Your task to perform on an android device: Go to wifi settings Image 0: 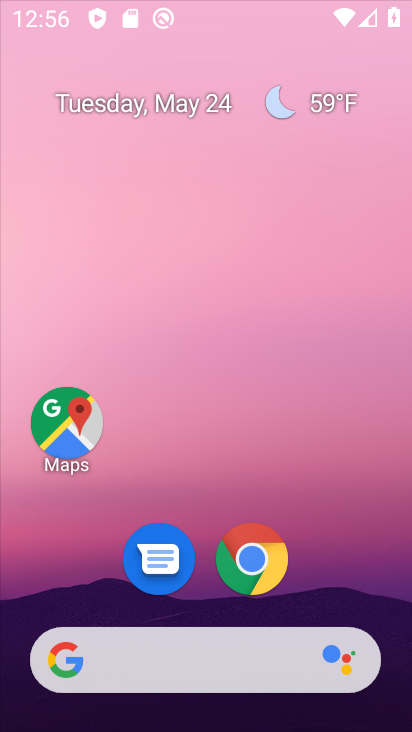
Step 0: click (287, 122)
Your task to perform on an android device: Go to wifi settings Image 1: 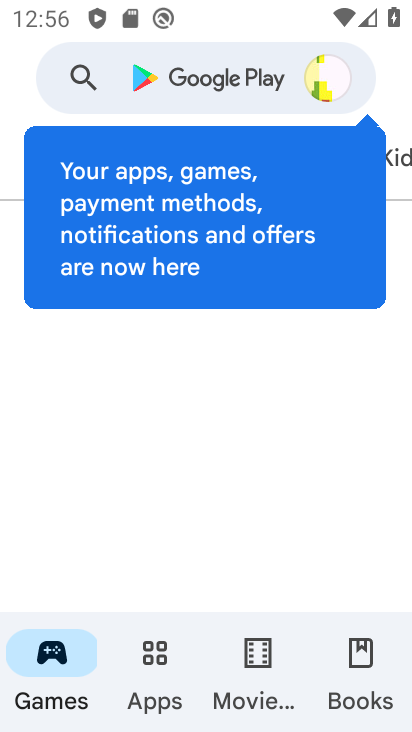
Step 1: press home button
Your task to perform on an android device: Go to wifi settings Image 2: 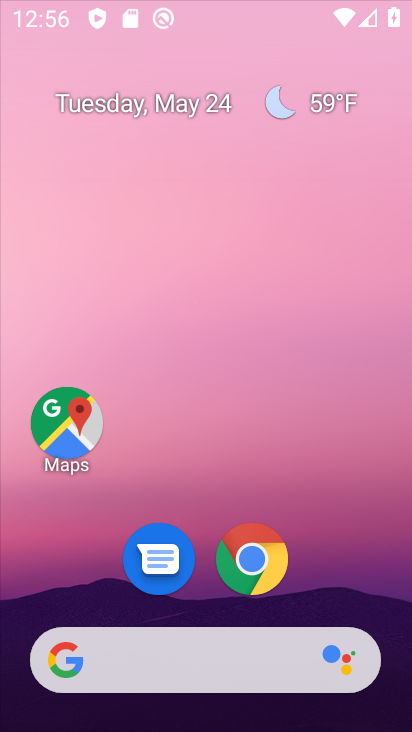
Step 2: drag from (398, 645) to (273, 23)
Your task to perform on an android device: Go to wifi settings Image 3: 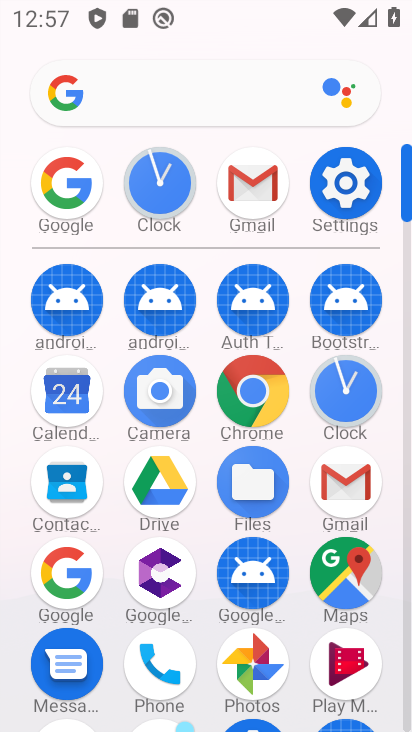
Step 3: click (344, 216)
Your task to perform on an android device: Go to wifi settings Image 4: 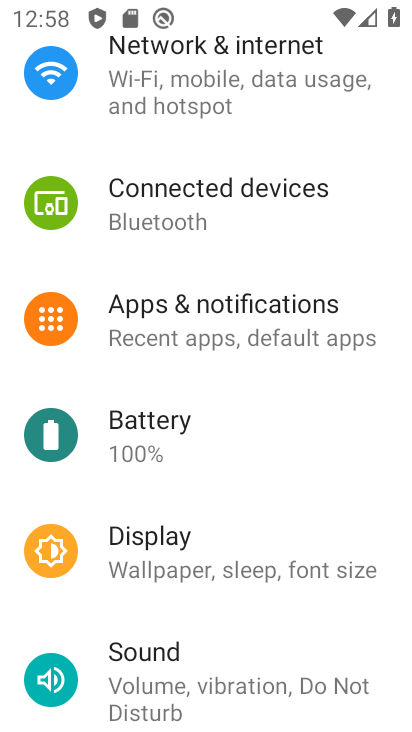
Step 4: drag from (177, 114) to (187, 583)
Your task to perform on an android device: Go to wifi settings Image 5: 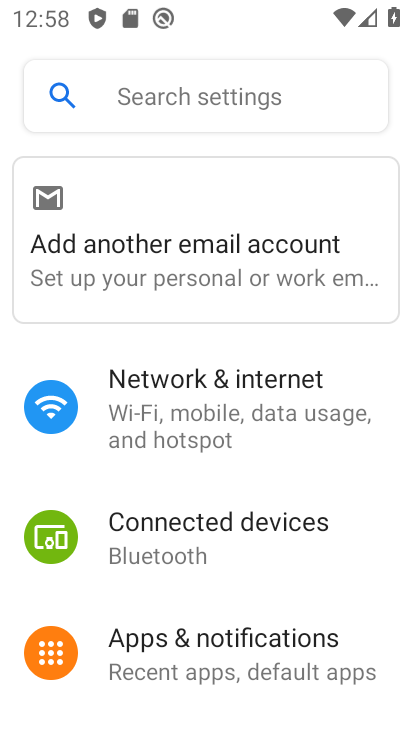
Step 5: click (144, 411)
Your task to perform on an android device: Go to wifi settings Image 6: 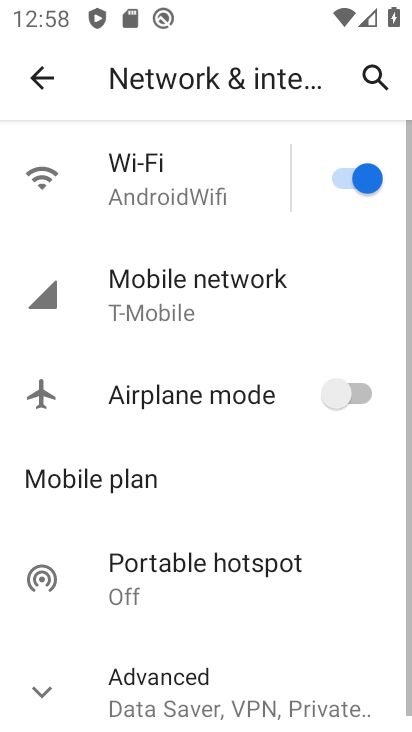
Step 6: click (152, 180)
Your task to perform on an android device: Go to wifi settings Image 7: 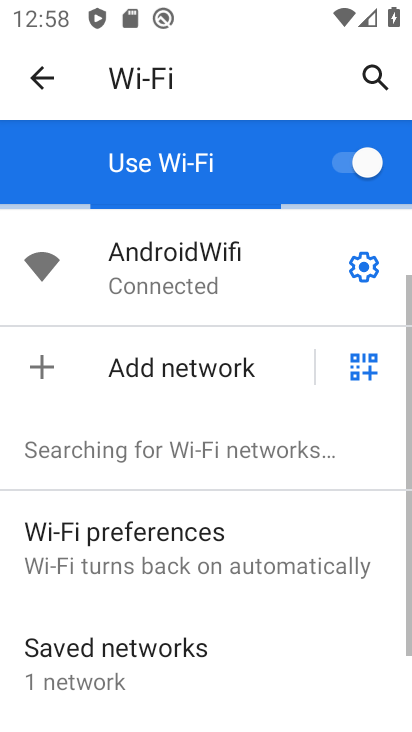
Step 7: task complete